Your task to perform on an android device: open chrome and create a bookmark for the current page Image 0: 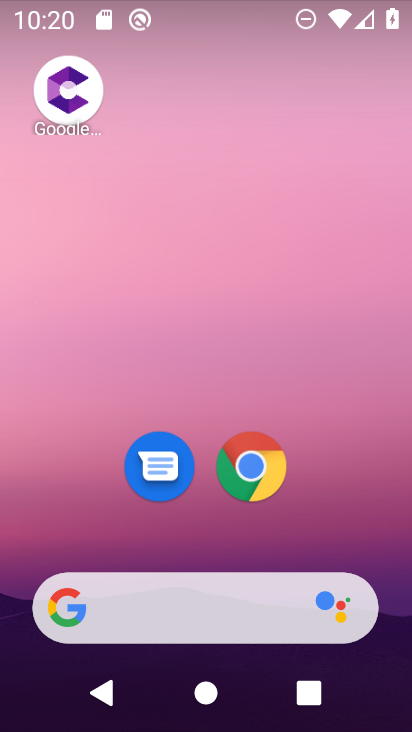
Step 0: drag from (357, 491) to (367, 111)
Your task to perform on an android device: open chrome and create a bookmark for the current page Image 1: 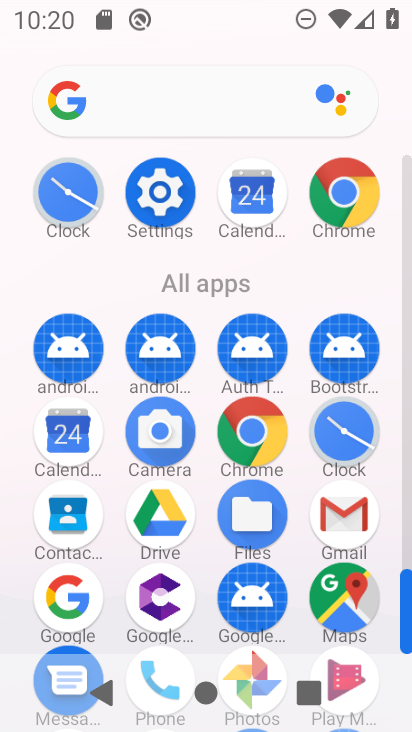
Step 1: click (364, 212)
Your task to perform on an android device: open chrome and create a bookmark for the current page Image 2: 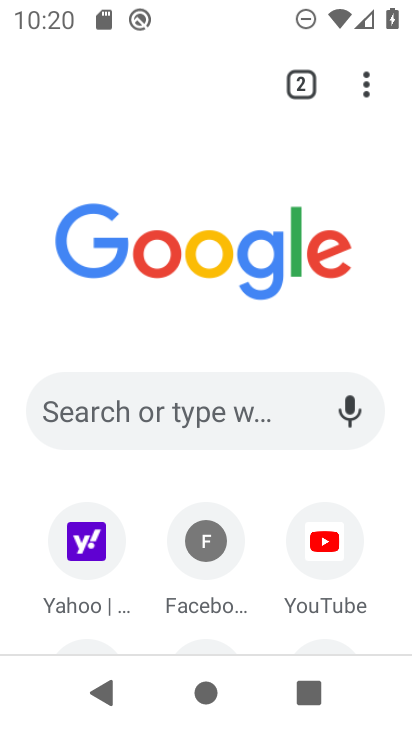
Step 2: click (368, 95)
Your task to perform on an android device: open chrome and create a bookmark for the current page Image 3: 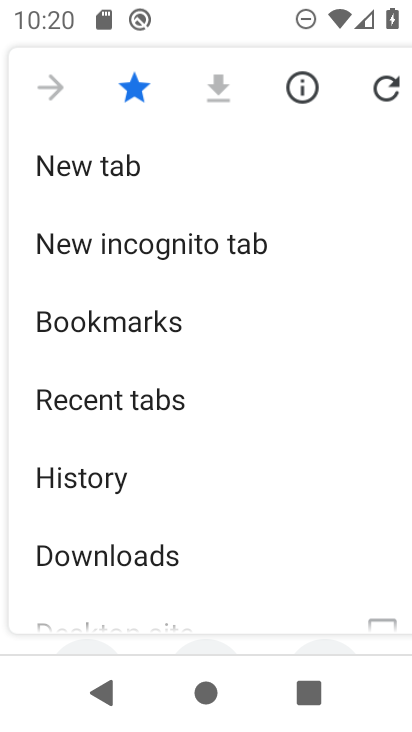
Step 3: task complete